Your task to perform on an android device: Go to ESPN.com Image 0: 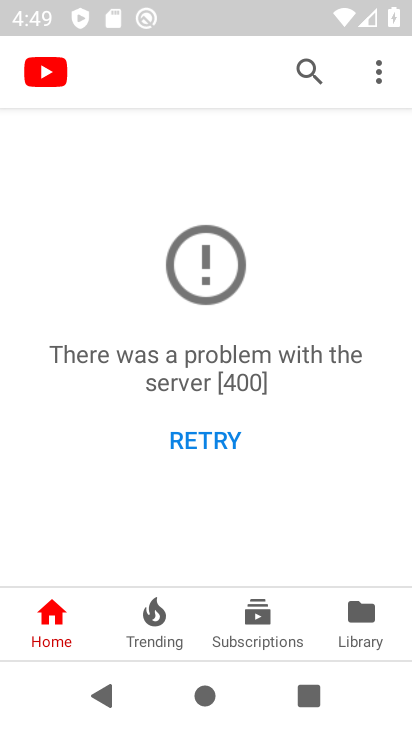
Step 0: press home button
Your task to perform on an android device: Go to ESPN.com Image 1: 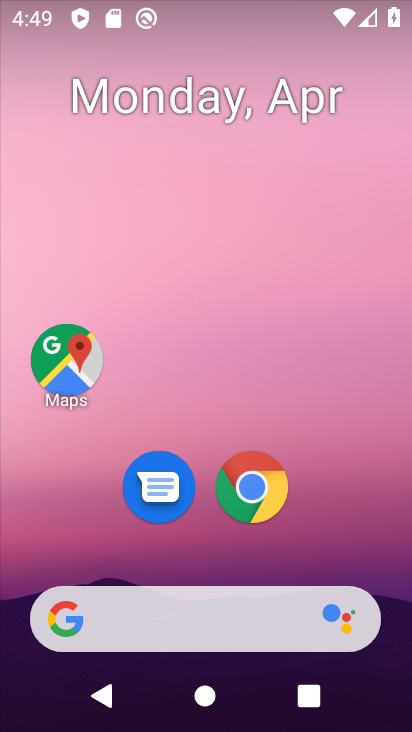
Step 1: click (273, 472)
Your task to perform on an android device: Go to ESPN.com Image 2: 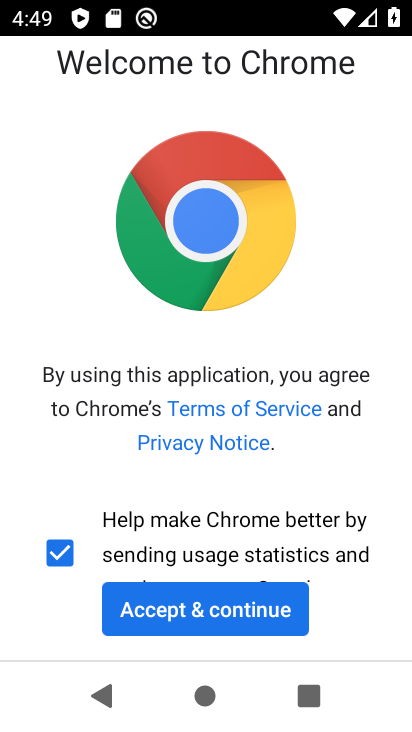
Step 2: click (271, 602)
Your task to perform on an android device: Go to ESPN.com Image 3: 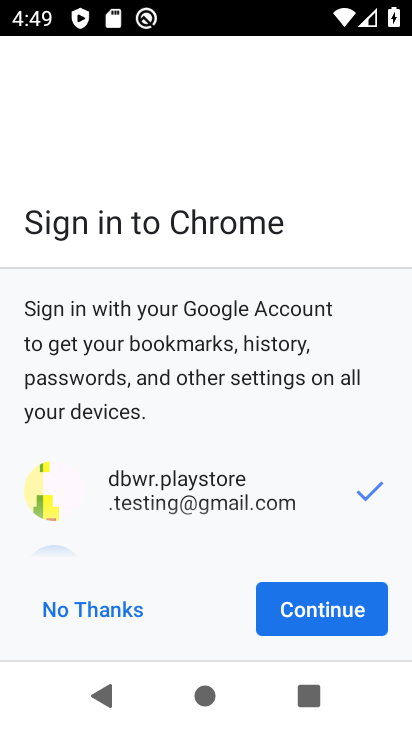
Step 3: click (283, 607)
Your task to perform on an android device: Go to ESPN.com Image 4: 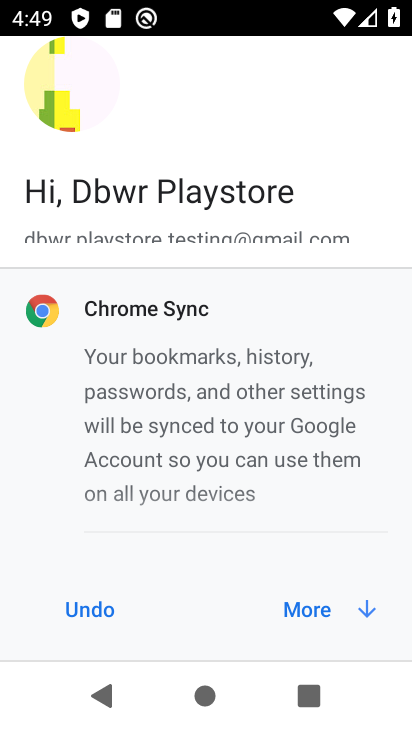
Step 4: click (283, 607)
Your task to perform on an android device: Go to ESPN.com Image 5: 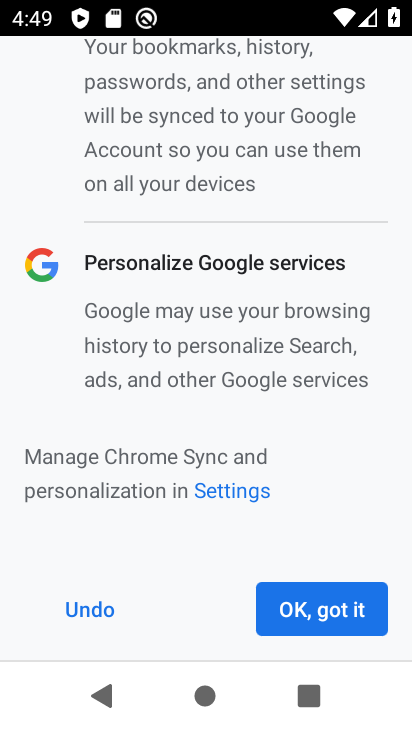
Step 5: click (283, 607)
Your task to perform on an android device: Go to ESPN.com Image 6: 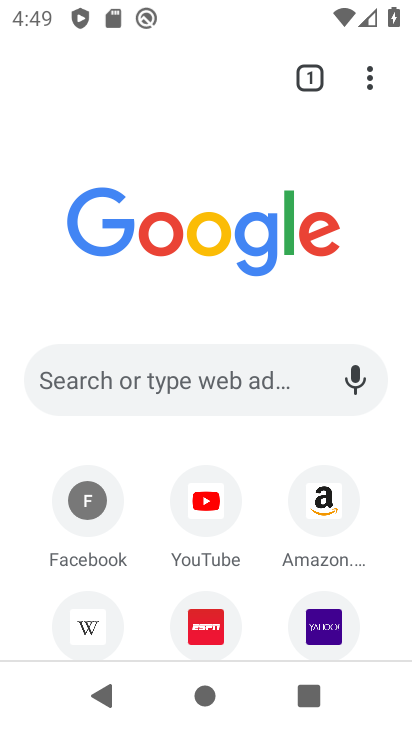
Step 6: click (221, 631)
Your task to perform on an android device: Go to ESPN.com Image 7: 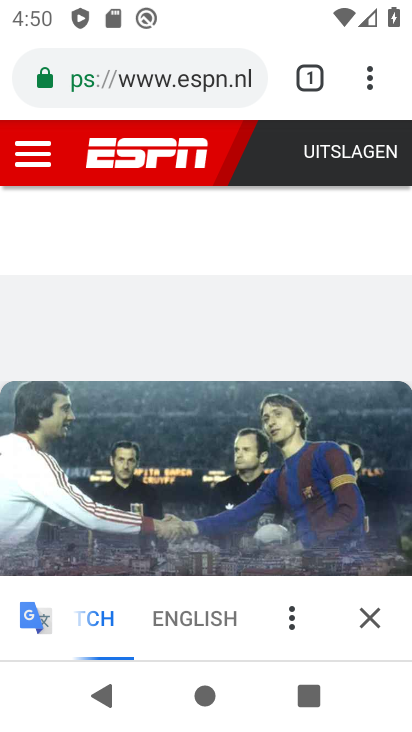
Step 7: task complete